Your task to perform on an android device: Set the phone to "Do not disturb". Image 0: 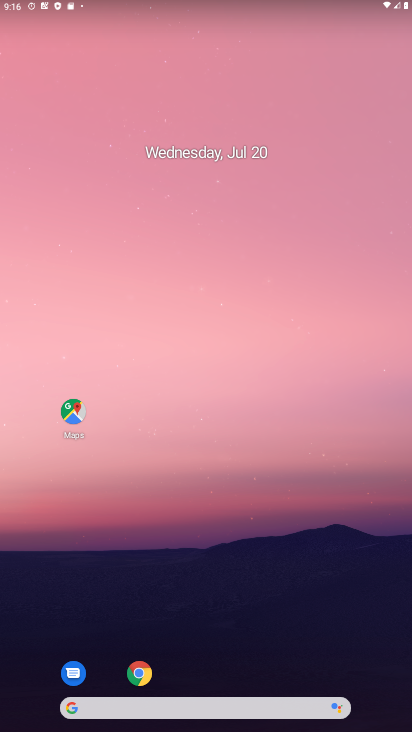
Step 0: drag from (364, 676) to (132, 114)
Your task to perform on an android device: Set the phone to "Do not disturb". Image 1: 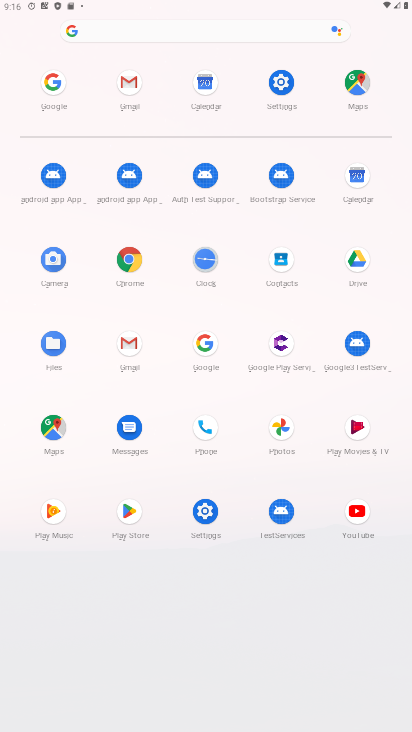
Step 1: drag from (161, 5) to (226, 529)
Your task to perform on an android device: Set the phone to "Do not disturb". Image 2: 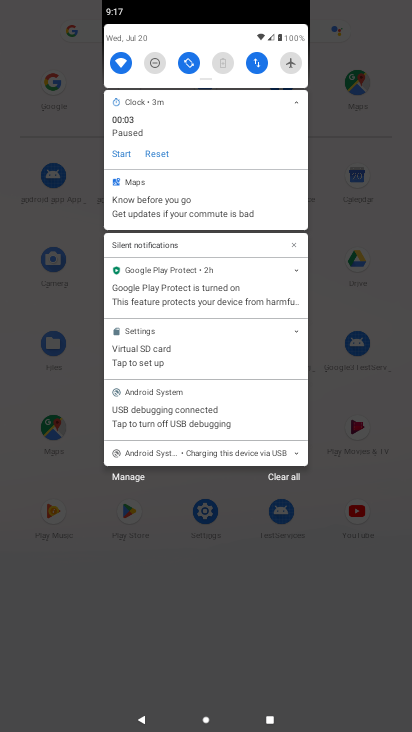
Step 2: click (153, 62)
Your task to perform on an android device: Set the phone to "Do not disturb". Image 3: 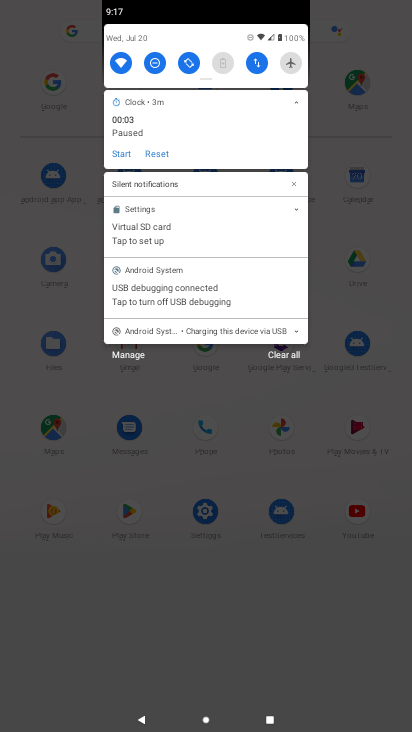
Step 3: task complete